Your task to perform on an android device: open sync settings in chrome Image 0: 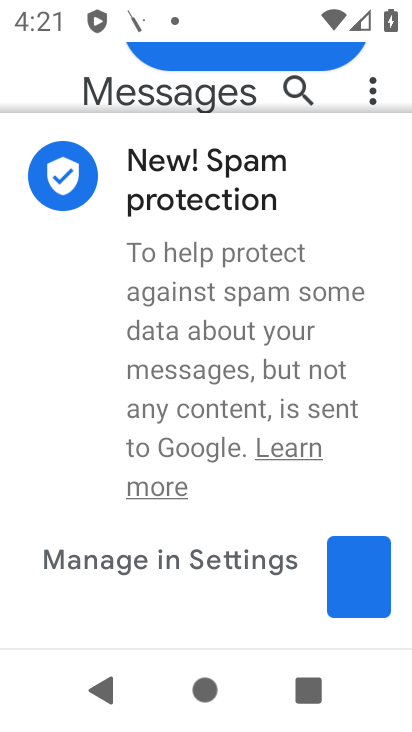
Step 0: press home button
Your task to perform on an android device: open sync settings in chrome Image 1: 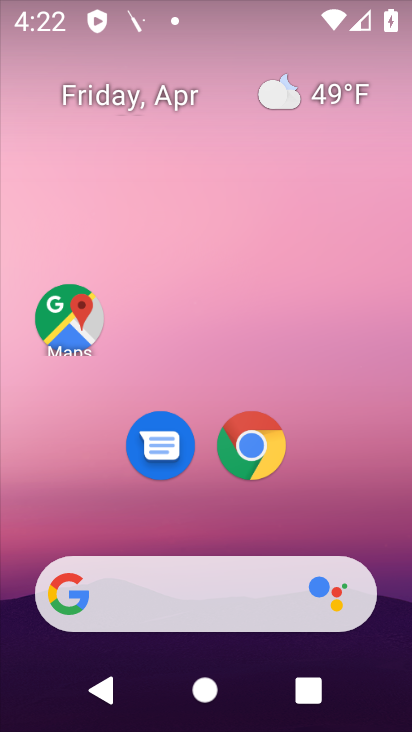
Step 1: drag from (329, 519) to (312, 102)
Your task to perform on an android device: open sync settings in chrome Image 2: 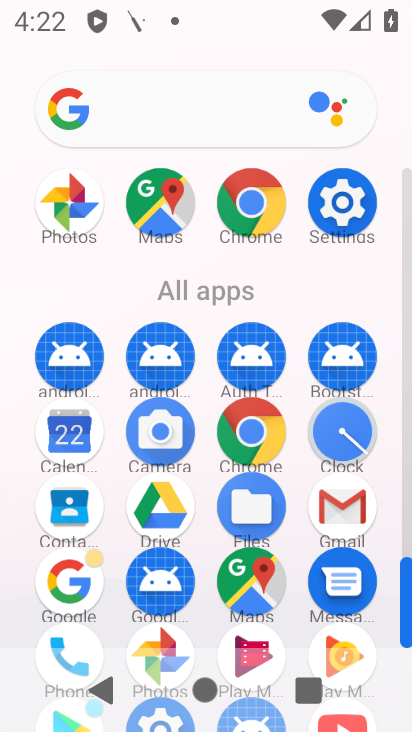
Step 2: click (242, 205)
Your task to perform on an android device: open sync settings in chrome Image 3: 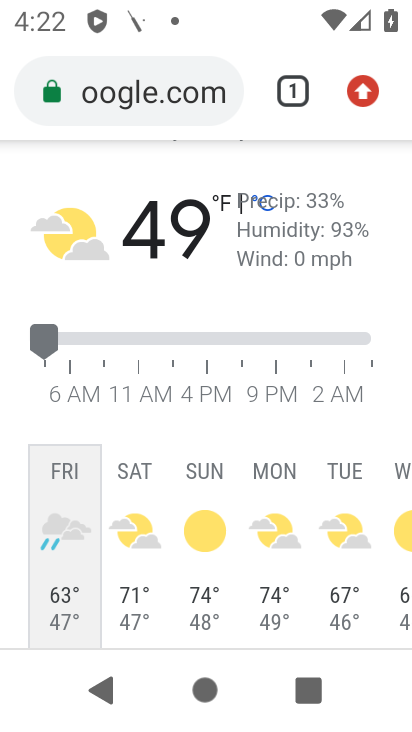
Step 3: drag from (391, 86) to (164, 458)
Your task to perform on an android device: open sync settings in chrome Image 4: 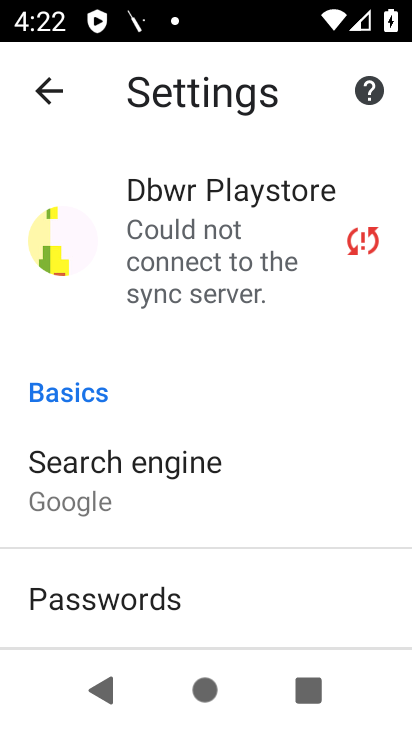
Step 4: click (197, 242)
Your task to perform on an android device: open sync settings in chrome Image 5: 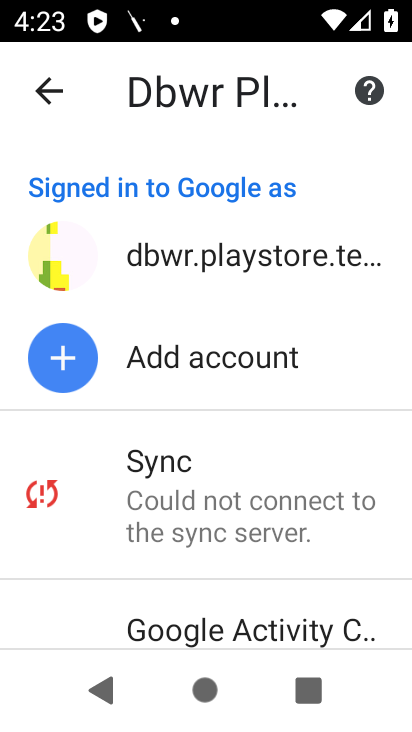
Step 5: click (198, 494)
Your task to perform on an android device: open sync settings in chrome Image 6: 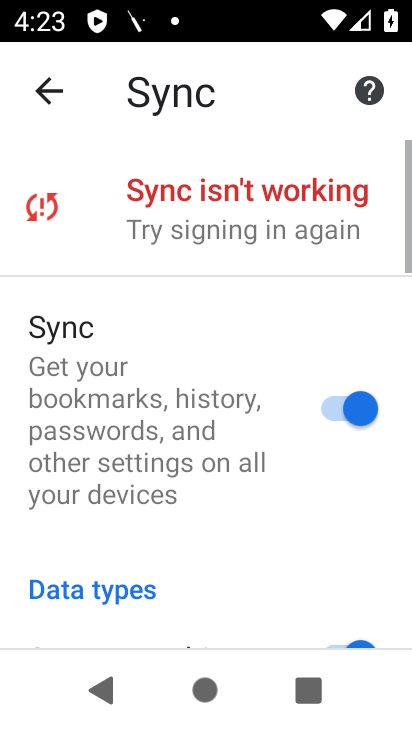
Step 6: task complete